Your task to perform on an android device: turn on data saver in the chrome app Image 0: 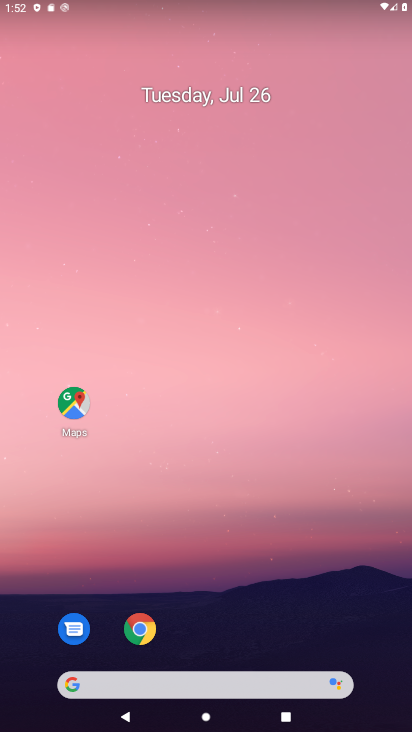
Step 0: click (139, 629)
Your task to perform on an android device: turn on data saver in the chrome app Image 1: 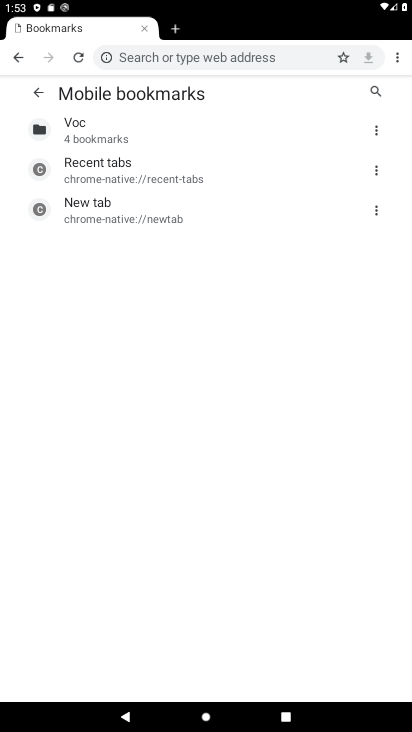
Step 1: click (396, 66)
Your task to perform on an android device: turn on data saver in the chrome app Image 2: 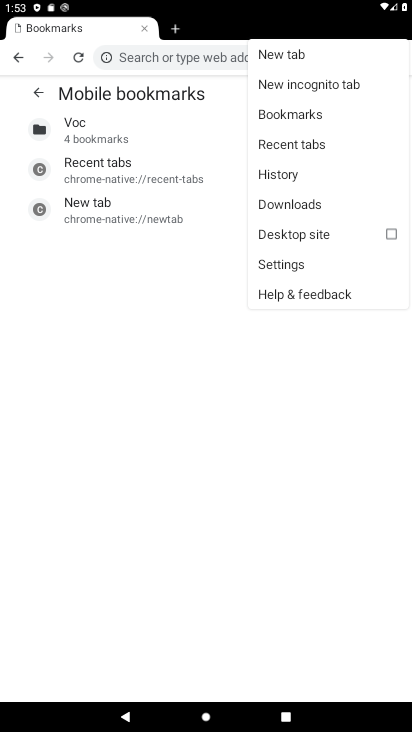
Step 2: click (285, 264)
Your task to perform on an android device: turn on data saver in the chrome app Image 3: 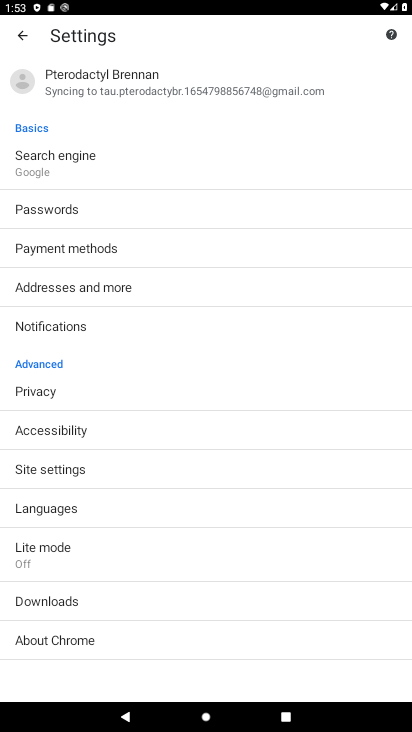
Step 3: click (36, 550)
Your task to perform on an android device: turn on data saver in the chrome app Image 4: 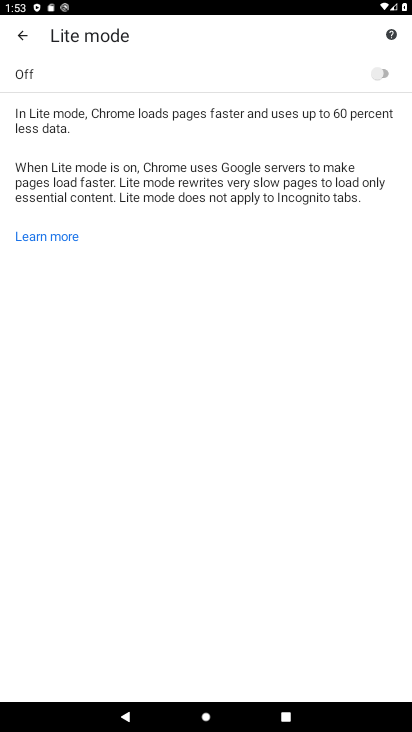
Step 4: click (389, 72)
Your task to perform on an android device: turn on data saver in the chrome app Image 5: 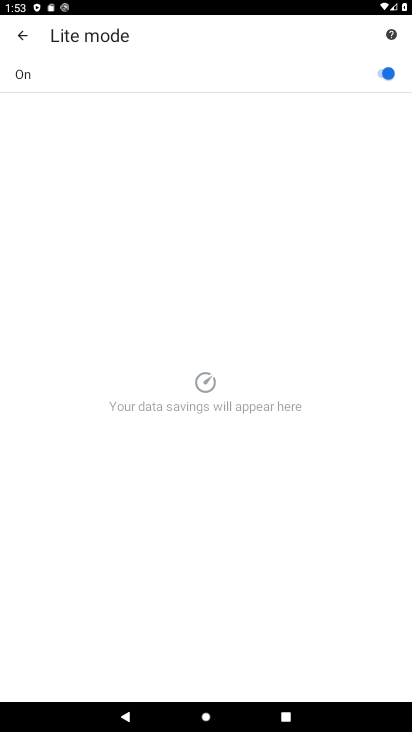
Step 5: task complete